Your task to perform on an android device: search for starred emails in the gmail app Image 0: 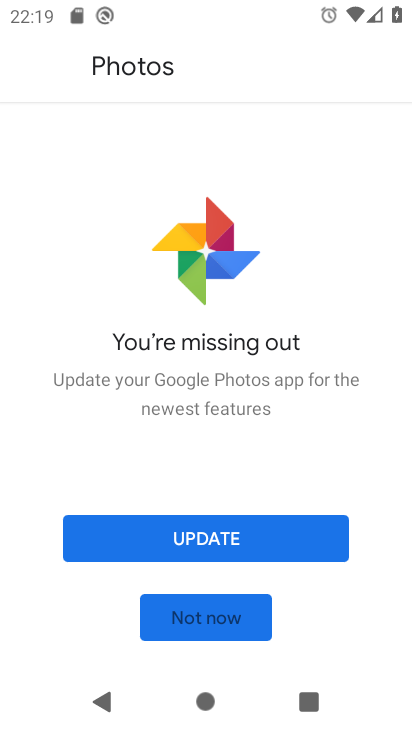
Step 0: press home button
Your task to perform on an android device: search for starred emails in the gmail app Image 1: 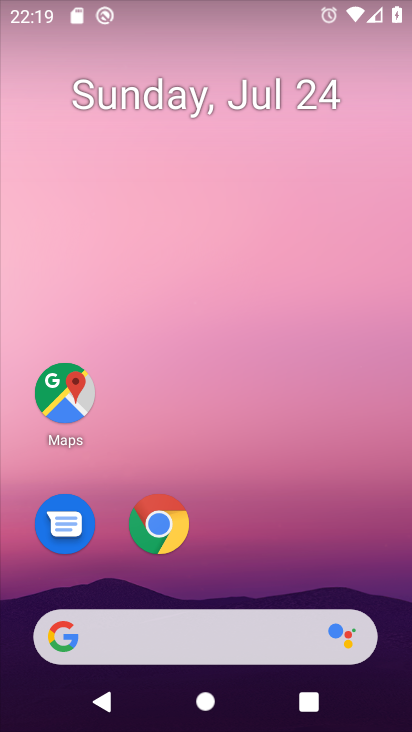
Step 1: drag from (303, 569) to (336, 26)
Your task to perform on an android device: search for starred emails in the gmail app Image 2: 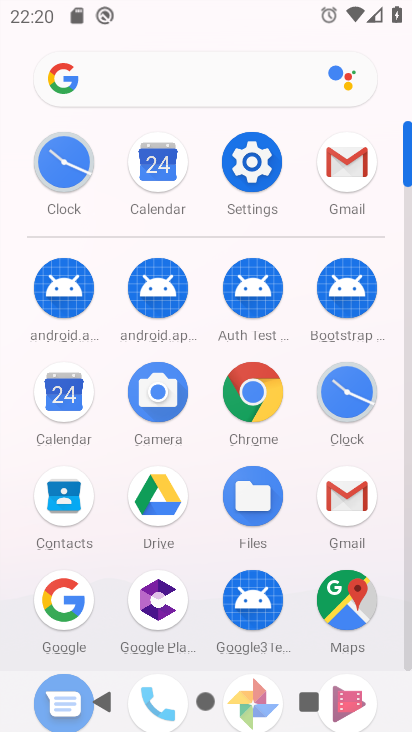
Step 2: click (351, 170)
Your task to perform on an android device: search for starred emails in the gmail app Image 3: 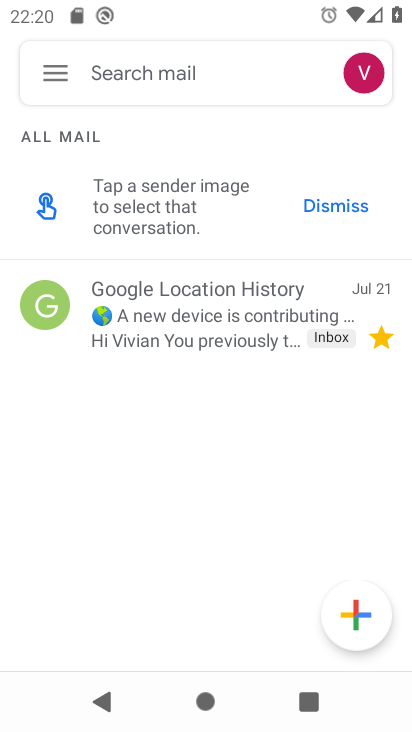
Step 3: click (49, 72)
Your task to perform on an android device: search for starred emails in the gmail app Image 4: 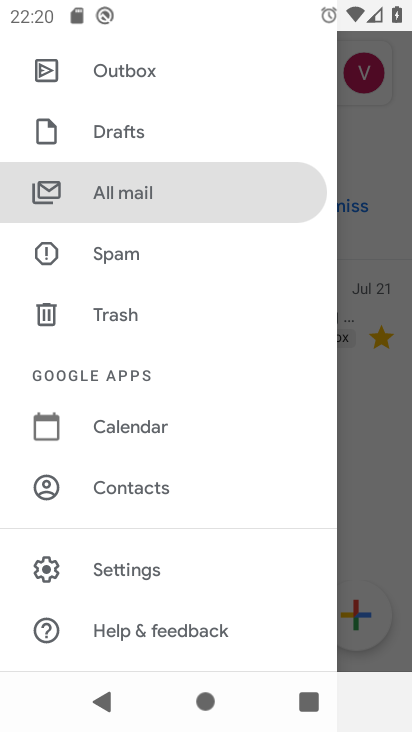
Step 4: drag from (179, 288) to (136, 600)
Your task to perform on an android device: search for starred emails in the gmail app Image 5: 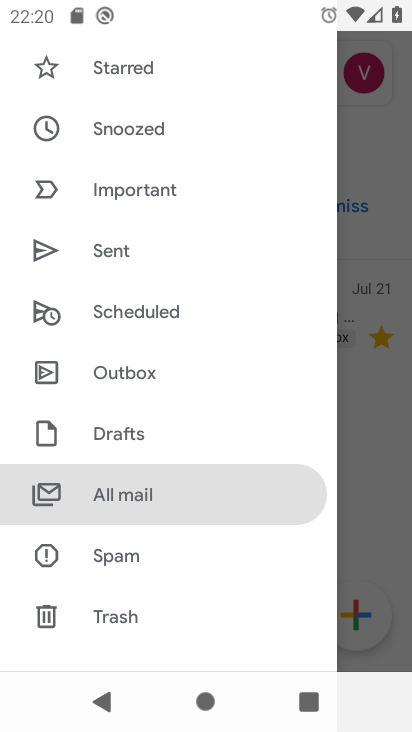
Step 5: click (133, 61)
Your task to perform on an android device: search for starred emails in the gmail app Image 6: 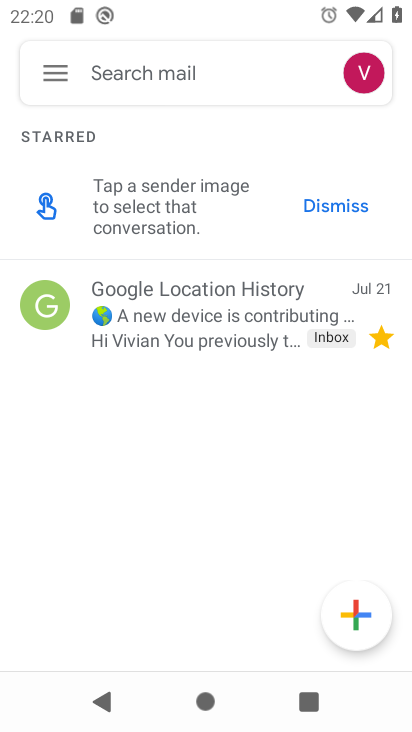
Step 6: task complete